Your task to perform on an android device: add a contact Image 0: 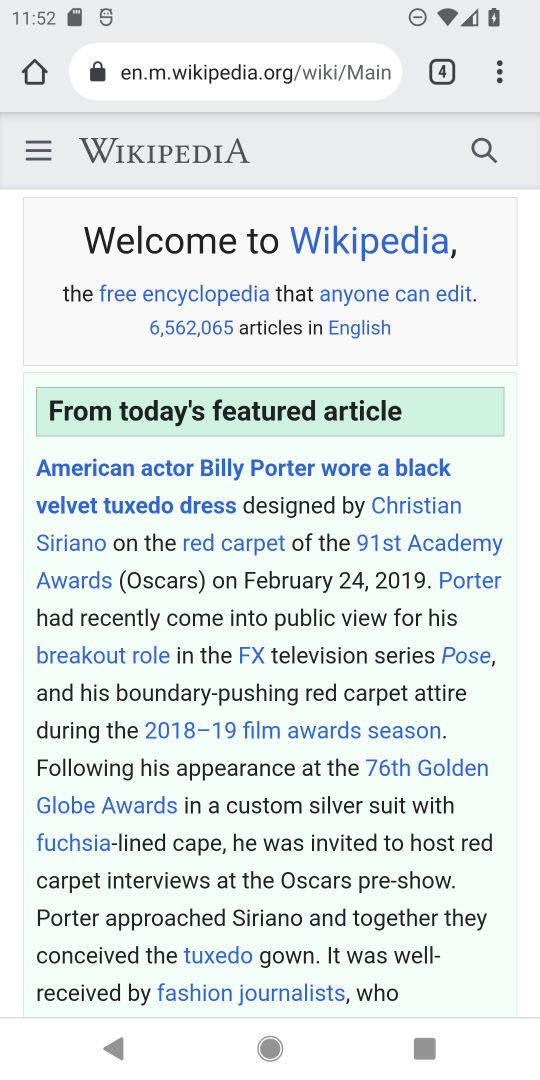
Step 0: press home button
Your task to perform on an android device: add a contact Image 1: 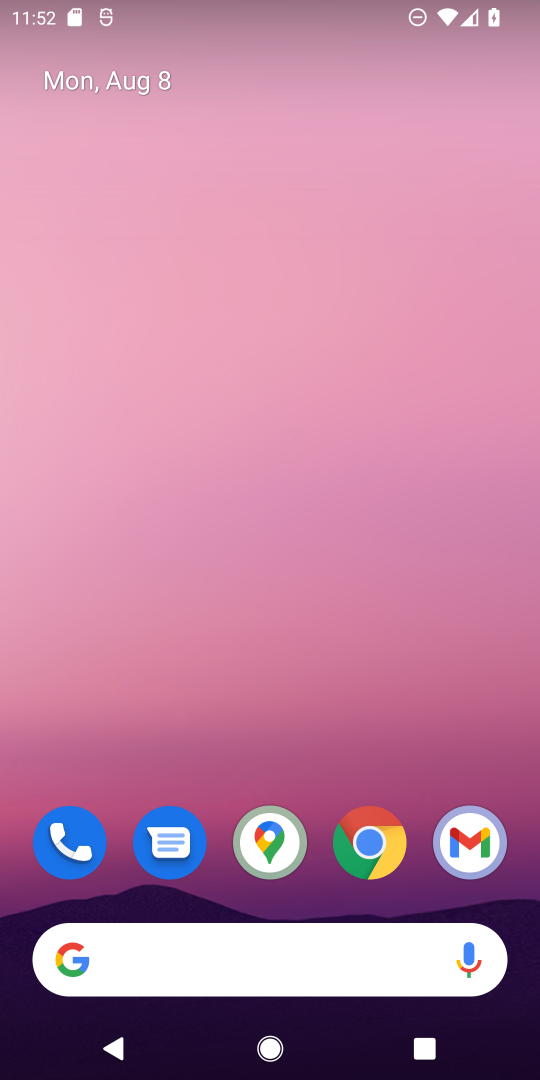
Step 1: click (41, 837)
Your task to perform on an android device: add a contact Image 2: 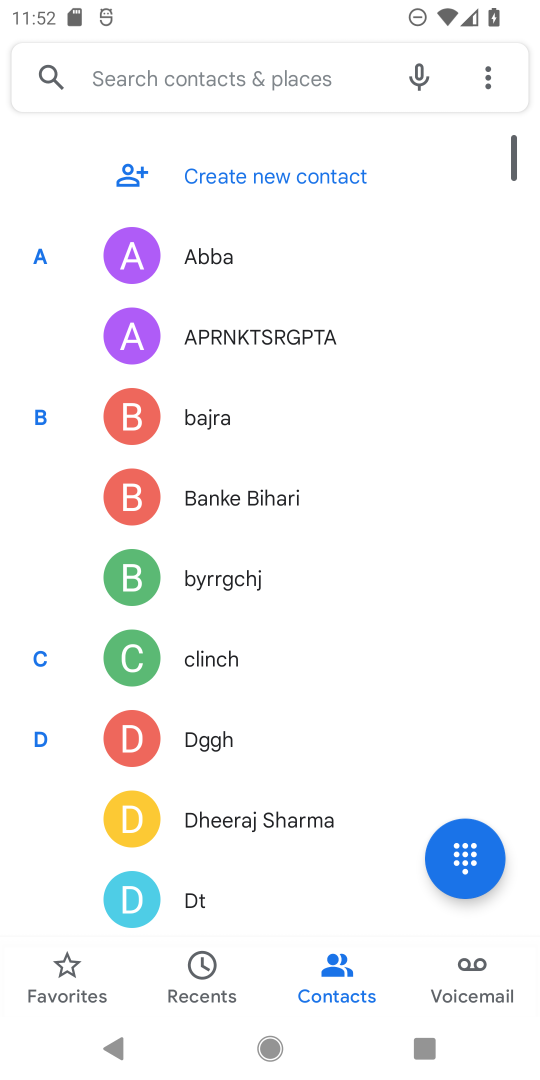
Step 2: click (322, 178)
Your task to perform on an android device: add a contact Image 3: 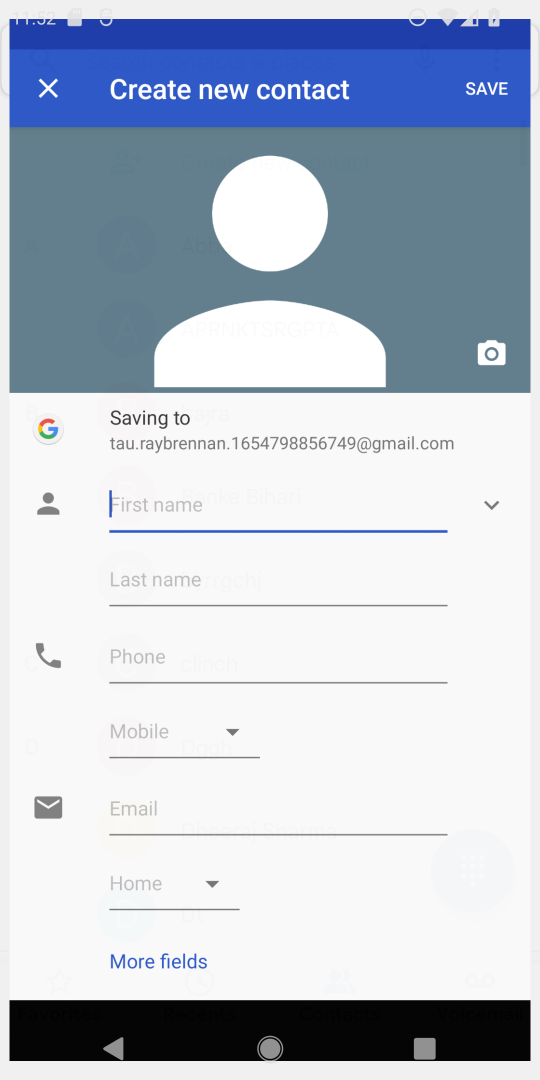
Step 3: drag from (339, 312) to (501, 534)
Your task to perform on an android device: add a contact Image 4: 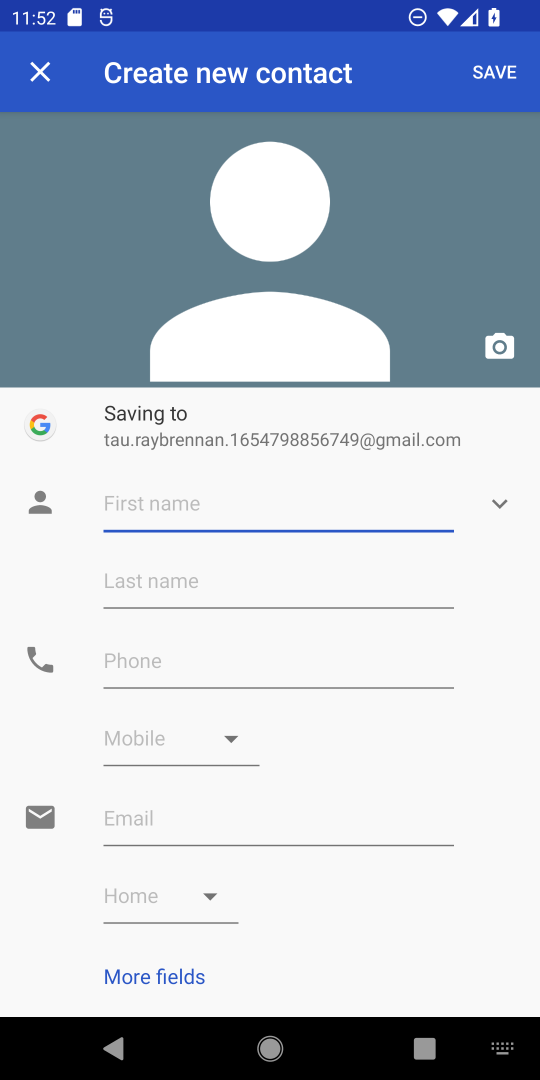
Step 4: type "bddgdg"
Your task to perform on an android device: add a contact Image 5: 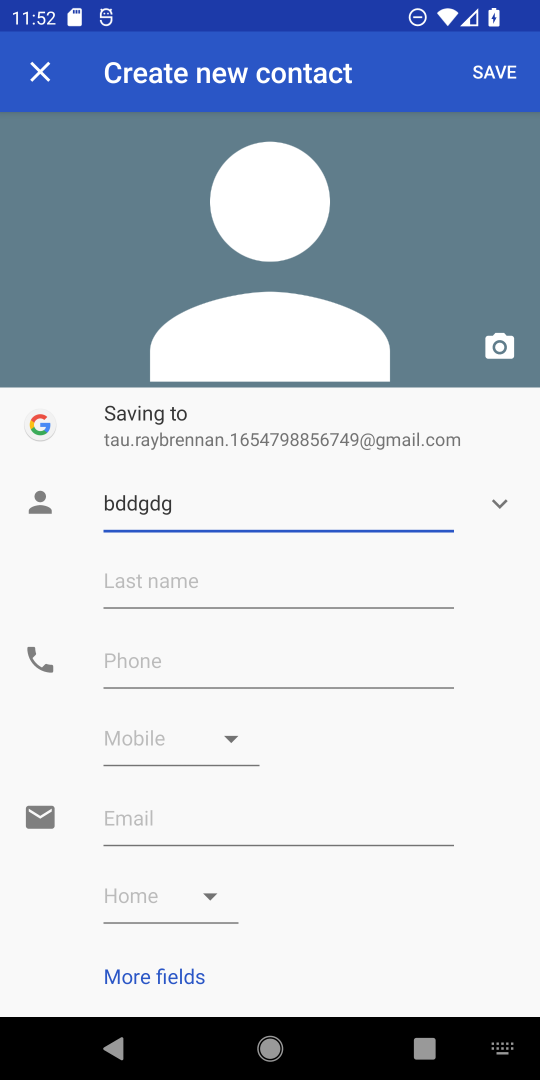
Step 5: click (189, 666)
Your task to perform on an android device: add a contact Image 6: 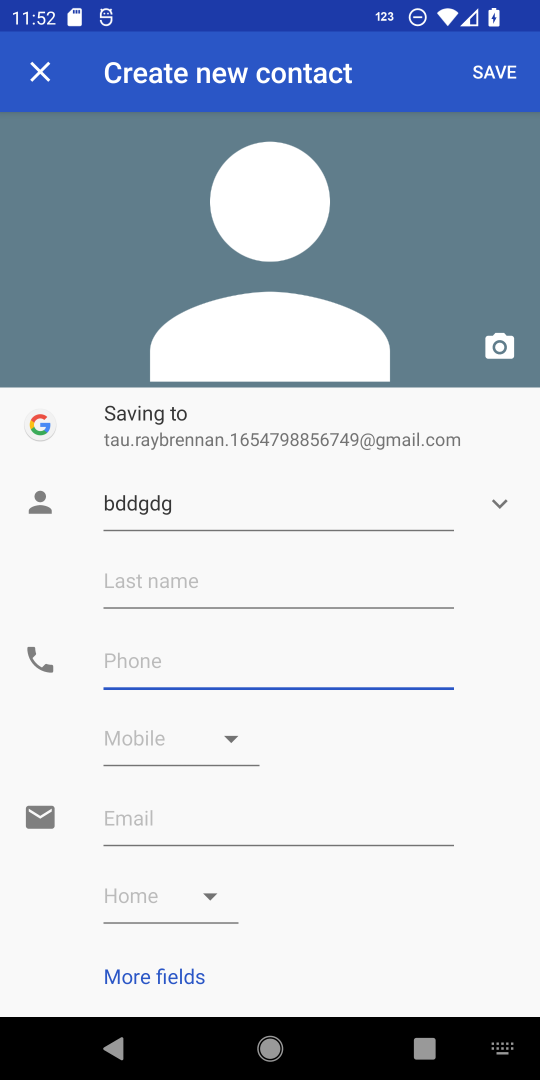
Step 6: type "655677675"
Your task to perform on an android device: add a contact Image 7: 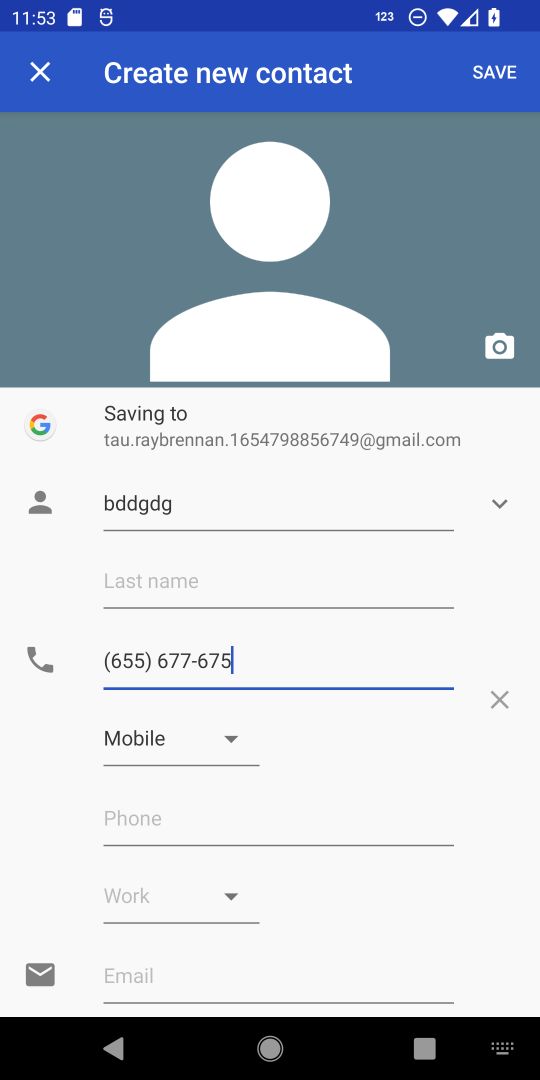
Step 7: click (512, 72)
Your task to perform on an android device: add a contact Image 8: 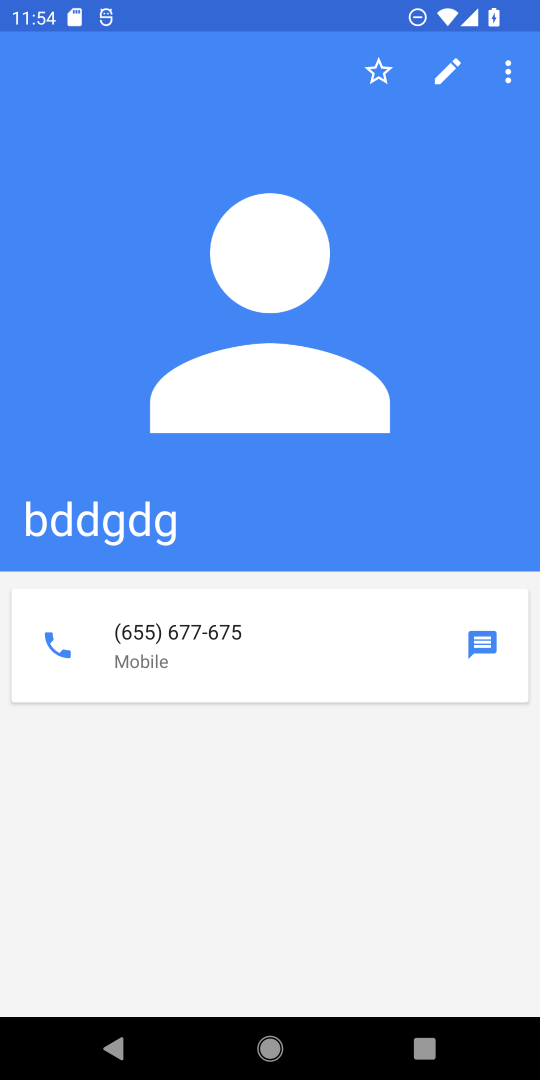
Step 8: task complete